Your task to perform on an android device: Open Amazon Image 0: 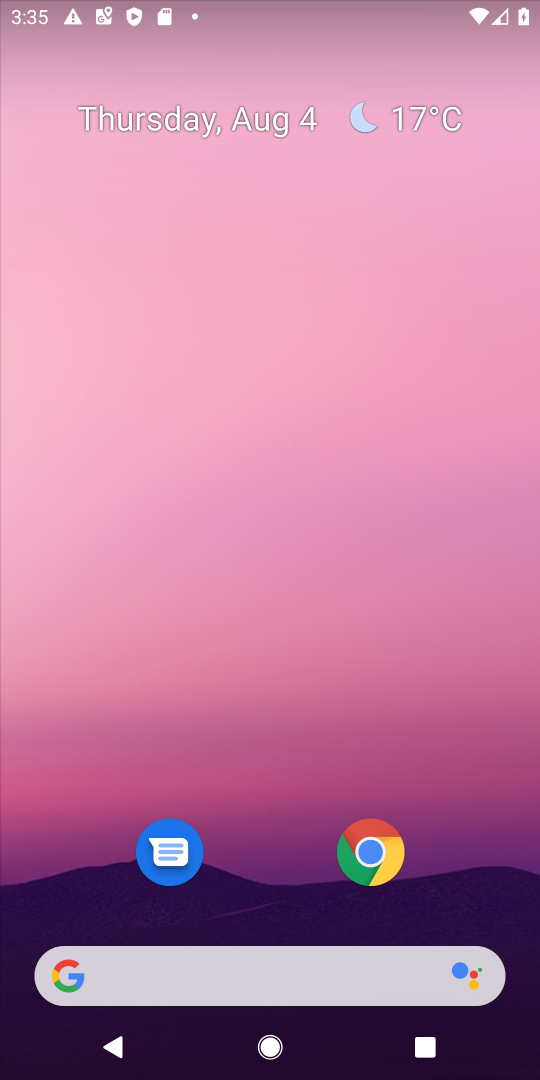
Step 0: click (362, 844)
Your task to perform on an android device: Open Amazon Image 1: 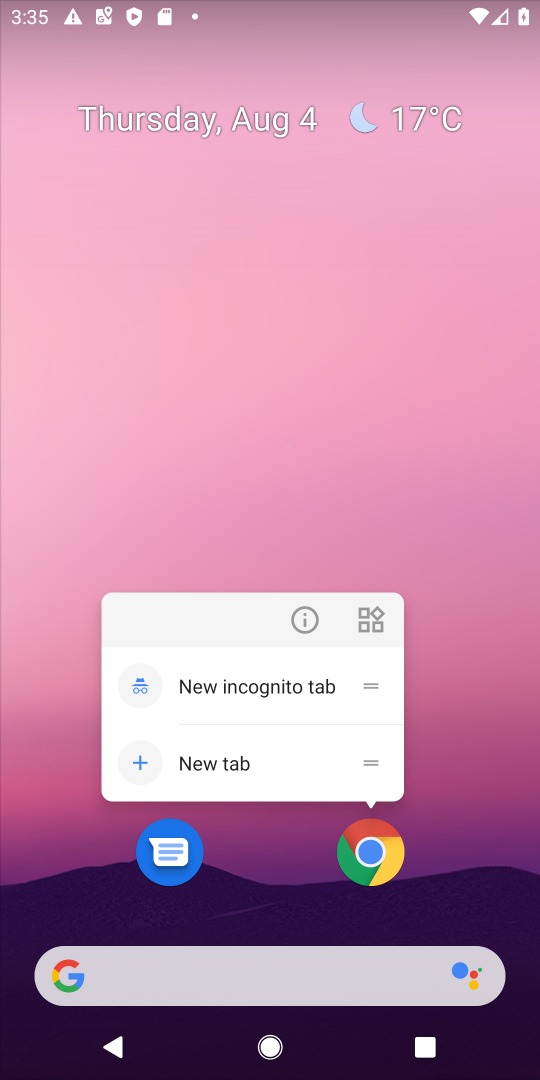
Step 1: click (353, 823)
Your task to perform on an android device: Open Amazon Image 2: 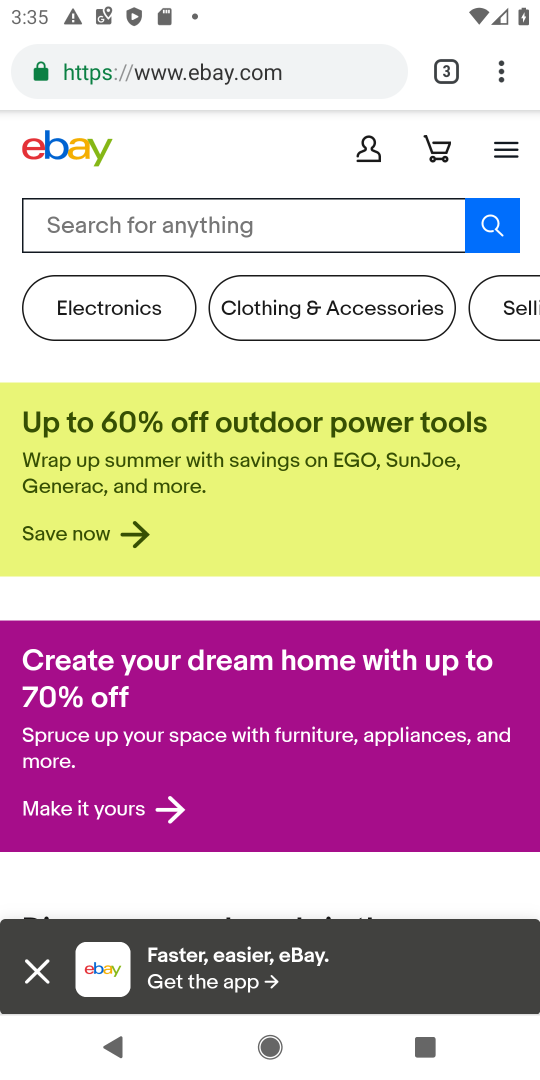
Step 2: click (446, 63)
Your task to perform on an android device: Open Amazon Image 3: 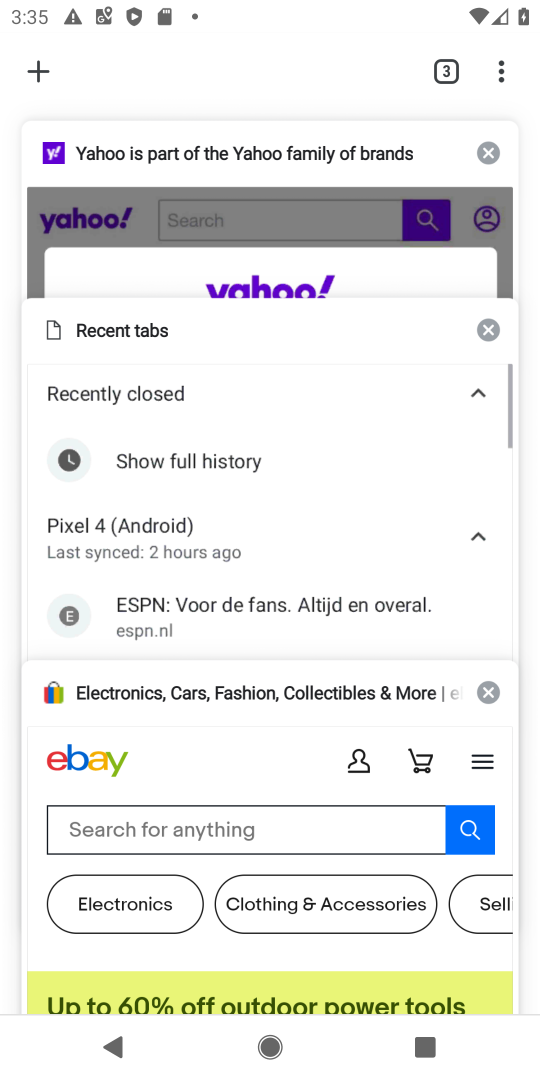
Step 3: click (44, 60)
Your task to perform on an android device: Open Amazon Image 4: 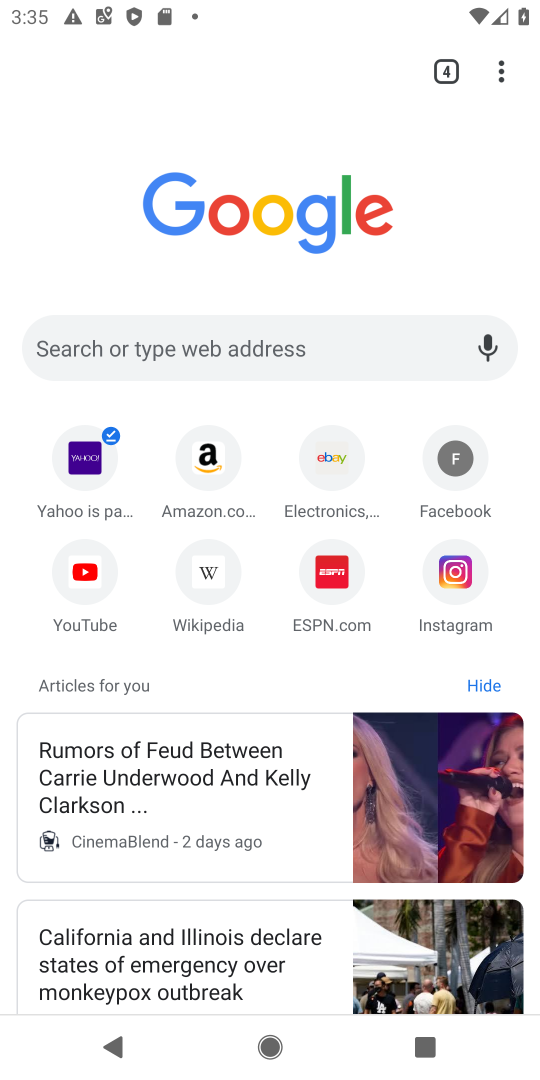
Step 4: click (183, 444)
Your task to perform on an android device: Open Amazon Image 5: 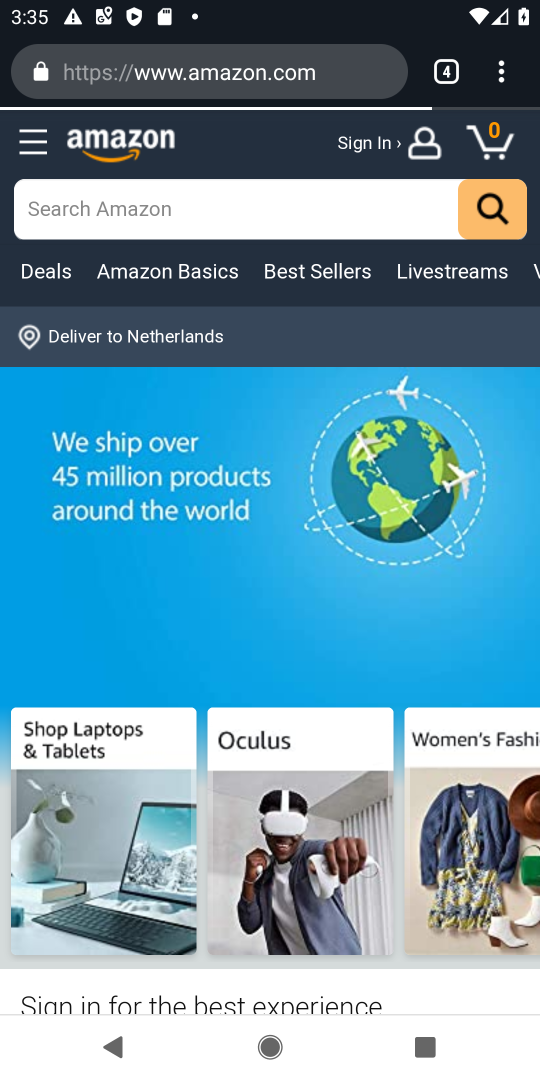
Step 5: task complete